Your task to perform on an android device: turn on data saver in the chrome app Image 0: 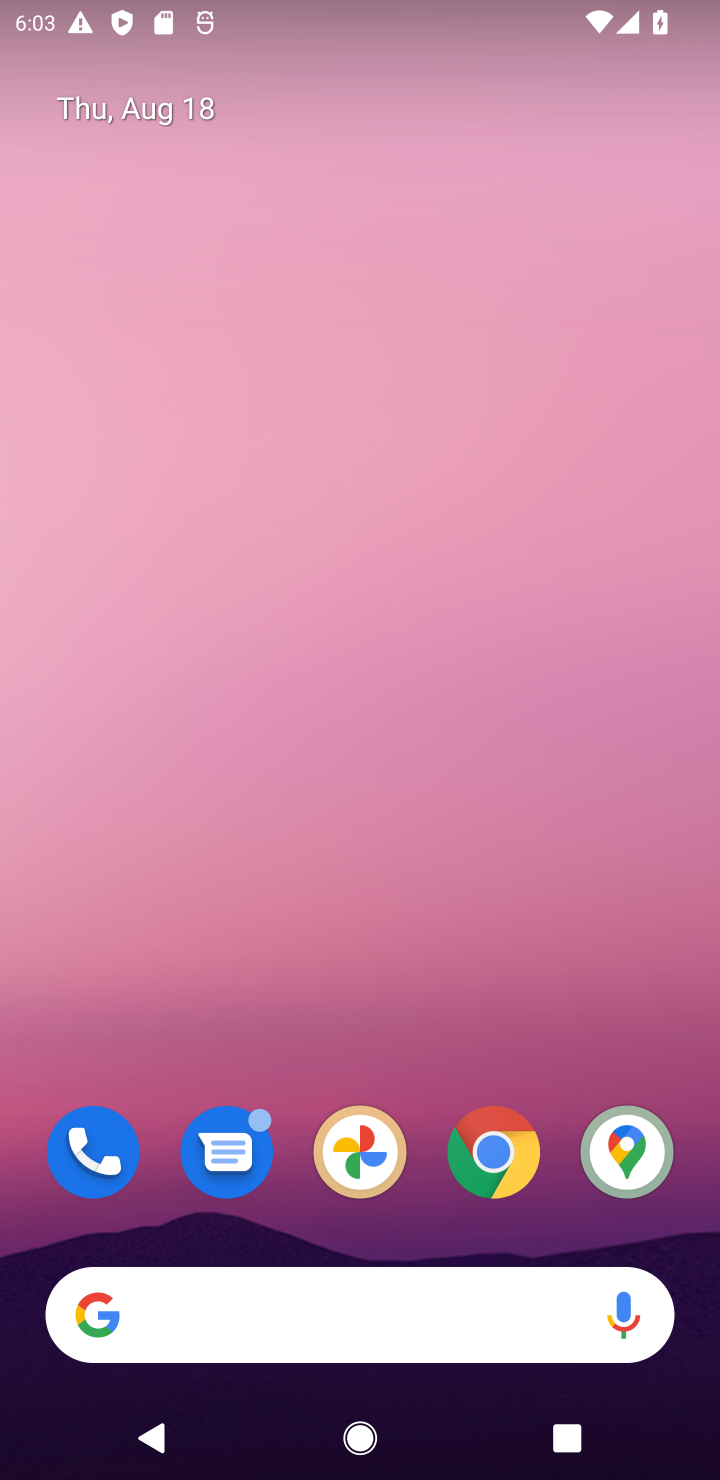
Step 0: drag from (366, 1033) to (424, 65)
Your task to perform on an android device: turn on data saver in the chrome app Image 1: 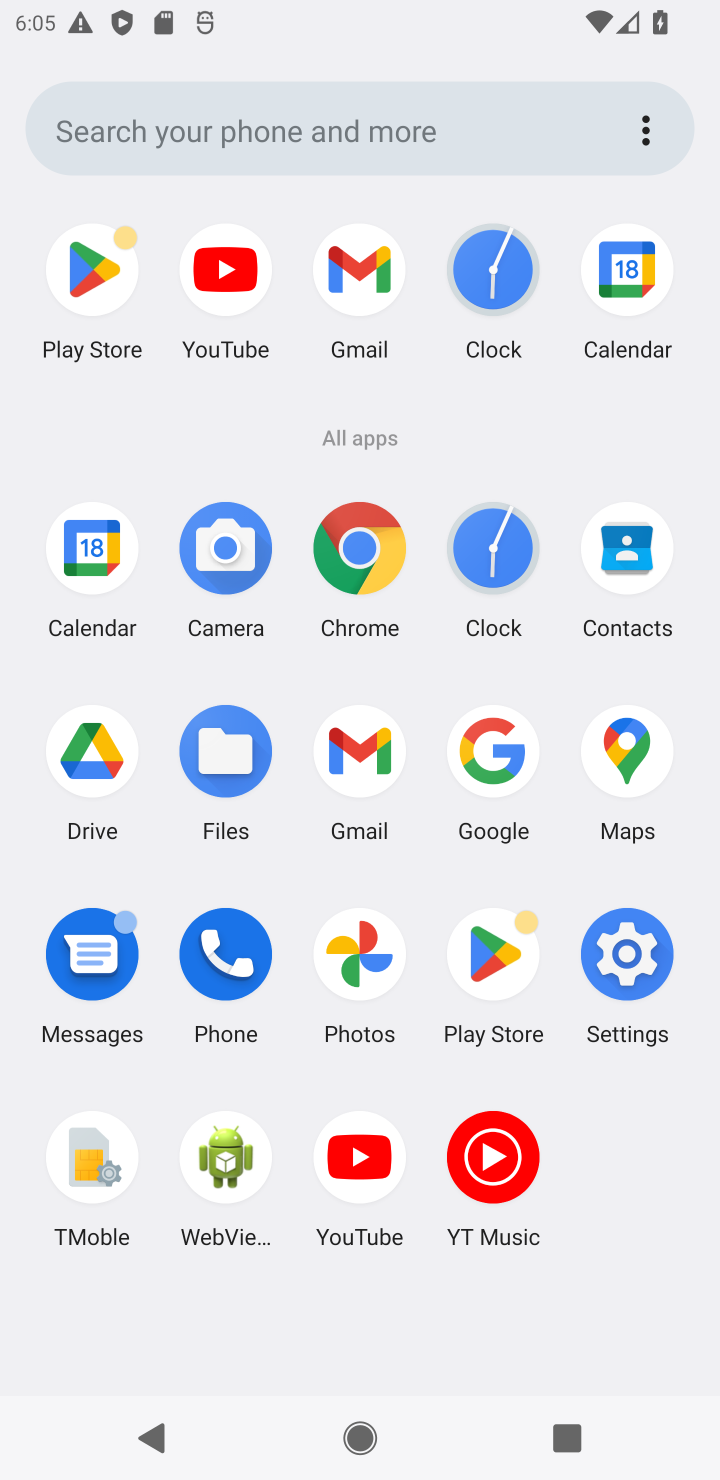
Step 1: click (354, 533)
Your task to perform on an android device: turn on data saver in the chrome app Image 2: 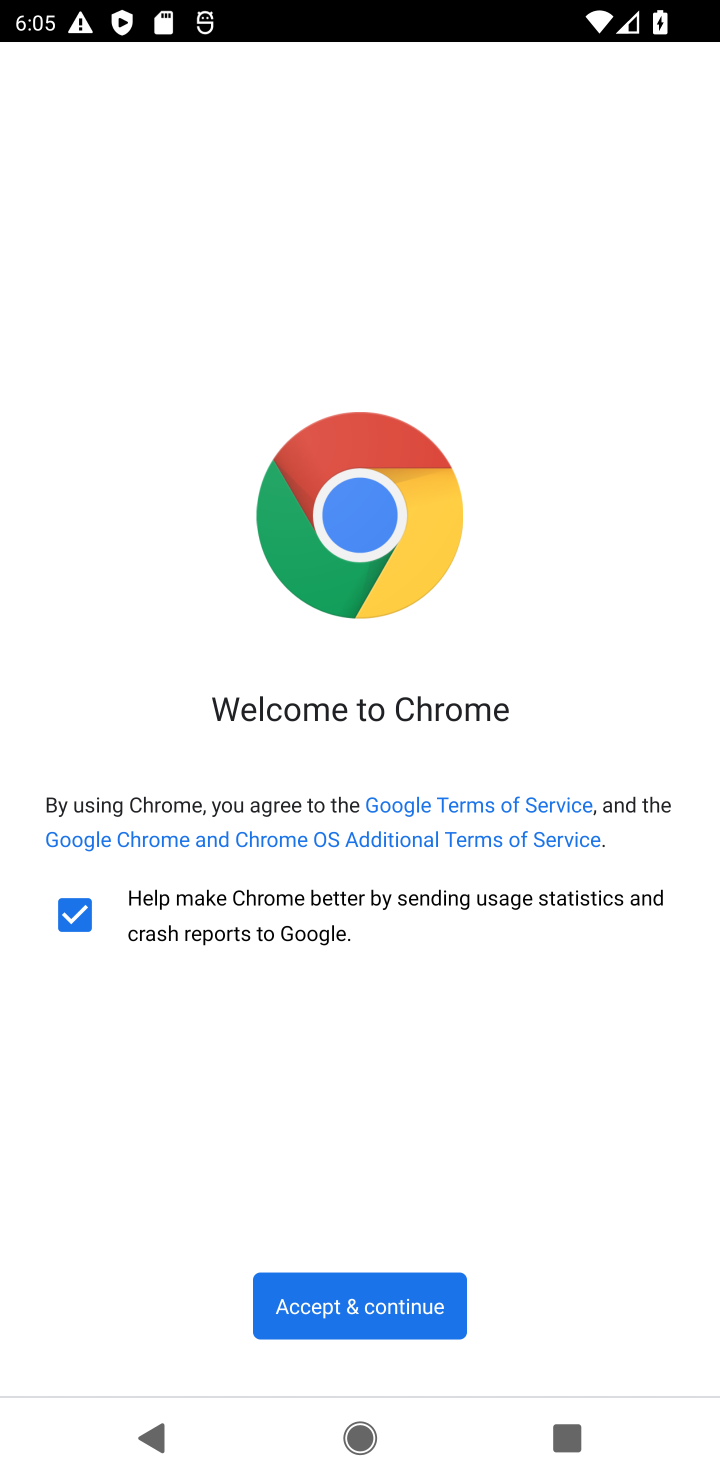
Step 2: click (350, 1308)
Your task to perform on an android device: turn on data saver in the chrome app Image 3: 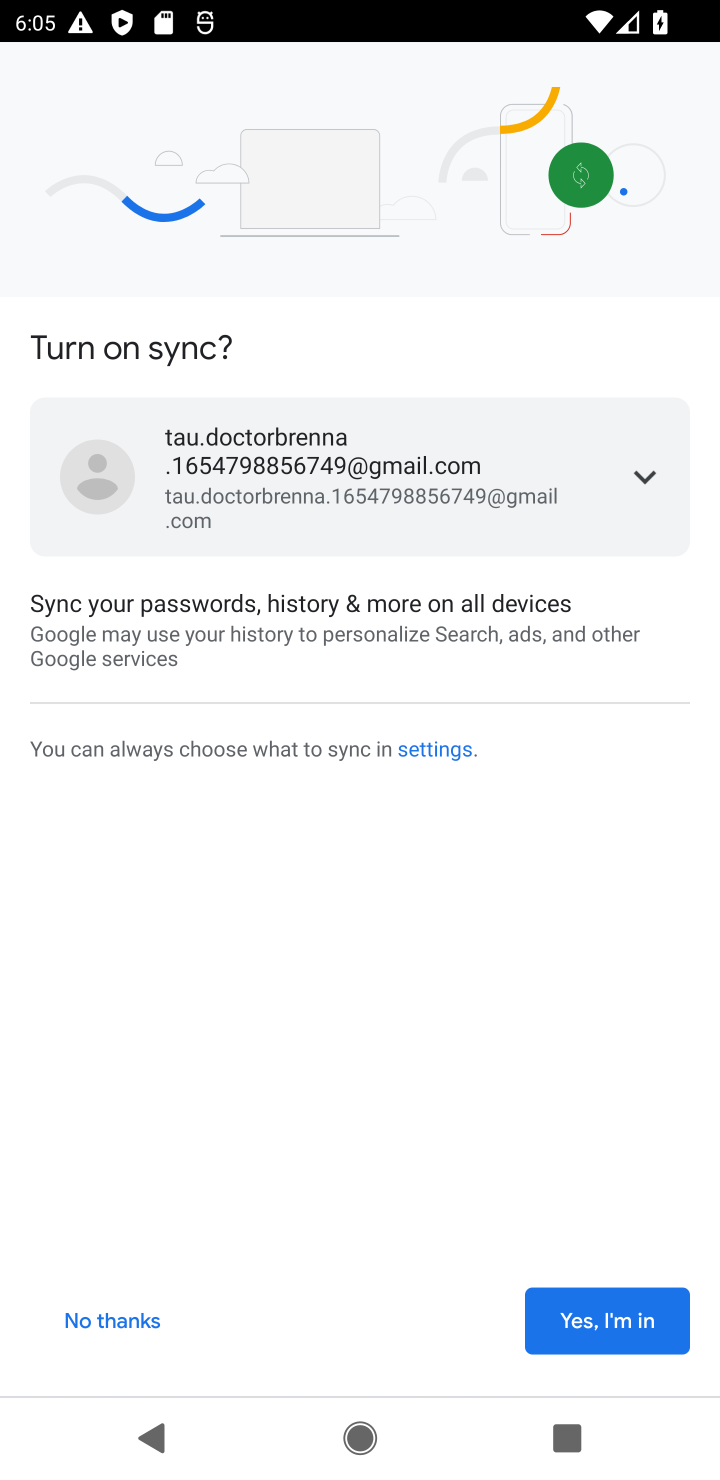
Step 3: click (607, 1311)
Your task to perform on an android device: turn on data saver in the chrome app Image 4: 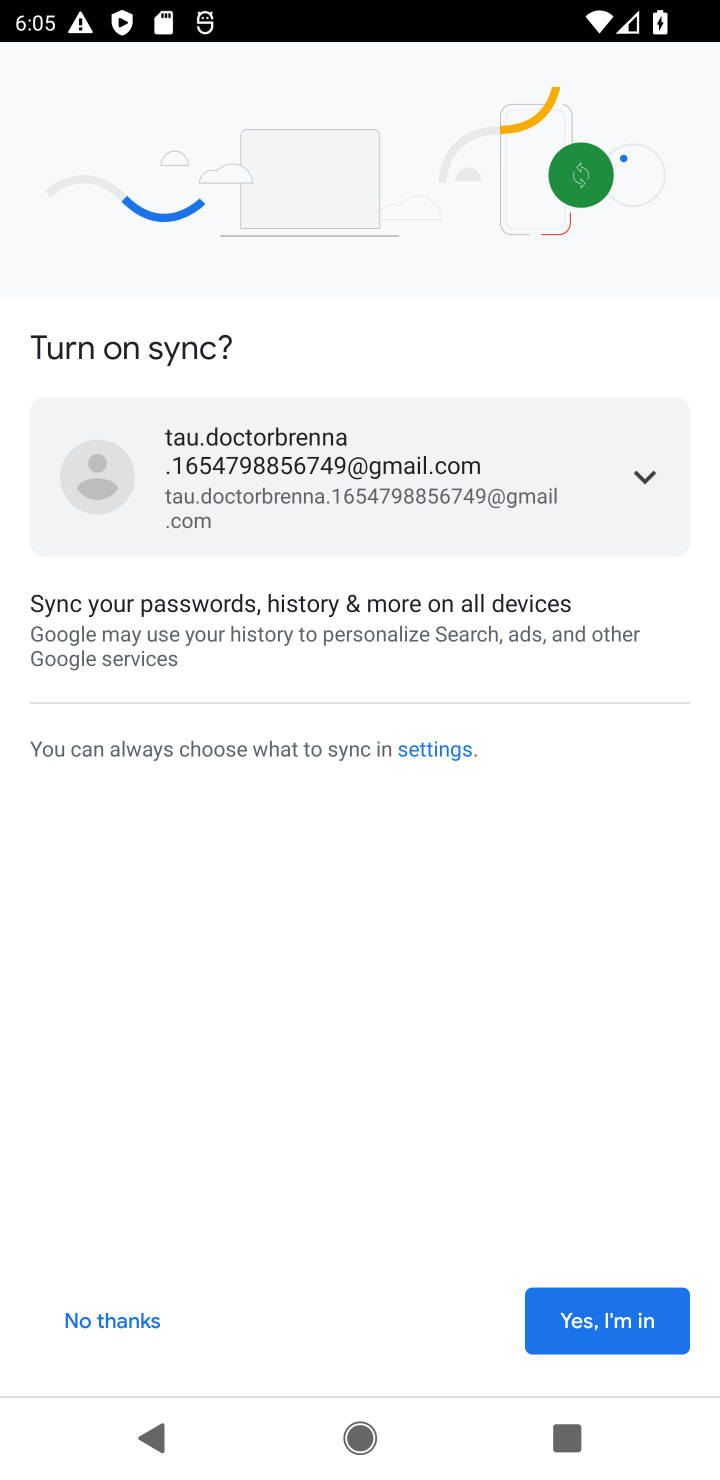
Step 4: click (607, 1319)
Your task to perform on an android device: turn on data saver in the chrome app Image 5: 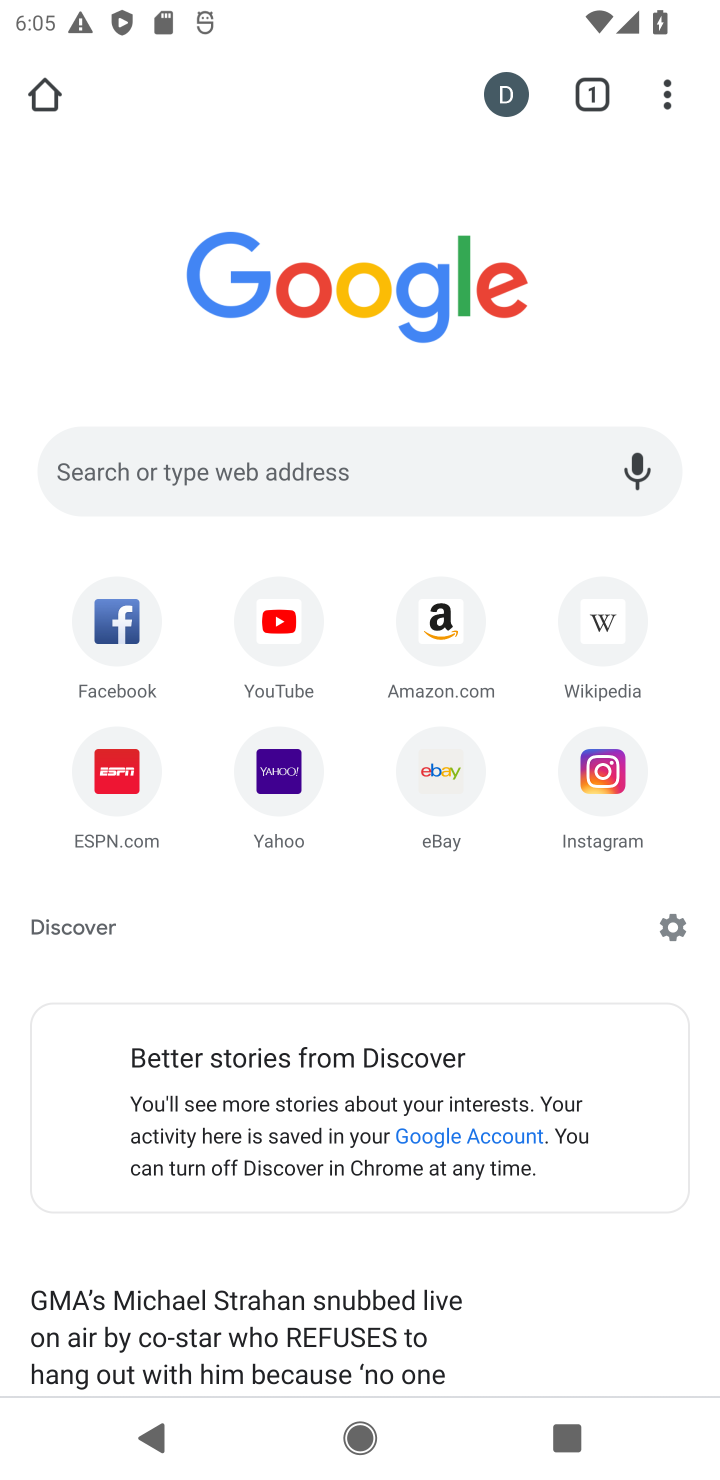
Step 5: click (666, 87)
Your task to perform on an android device: turn on data saver in the chrome app Image 6: 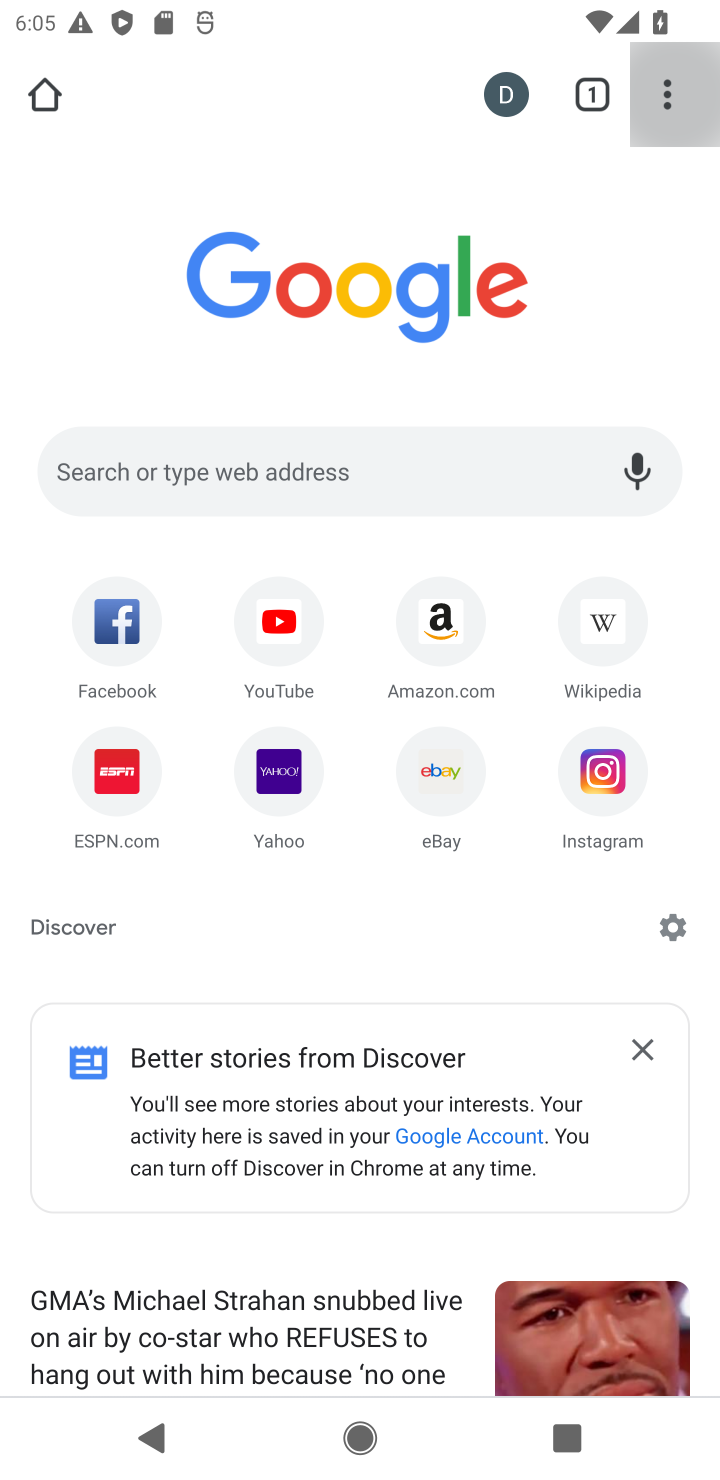
Step 6: drag from (666, 87) to (407, 871)
Your task to perform on an android device: turn on data saver in the chrome app Image 7: 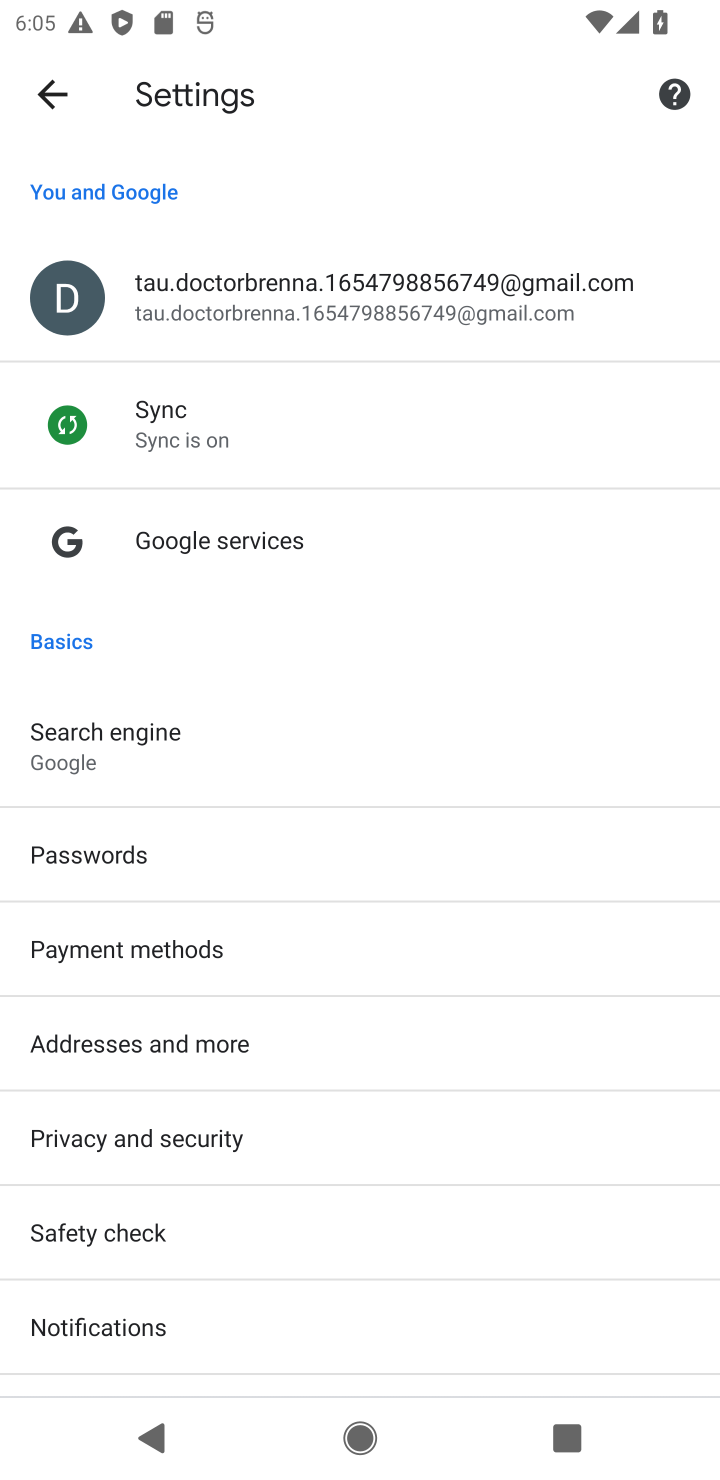
Step 7: drag from (222, 1271) to (262, 641)
Your task to perform on an android device: turn on data saver in the chrome app Image 8: 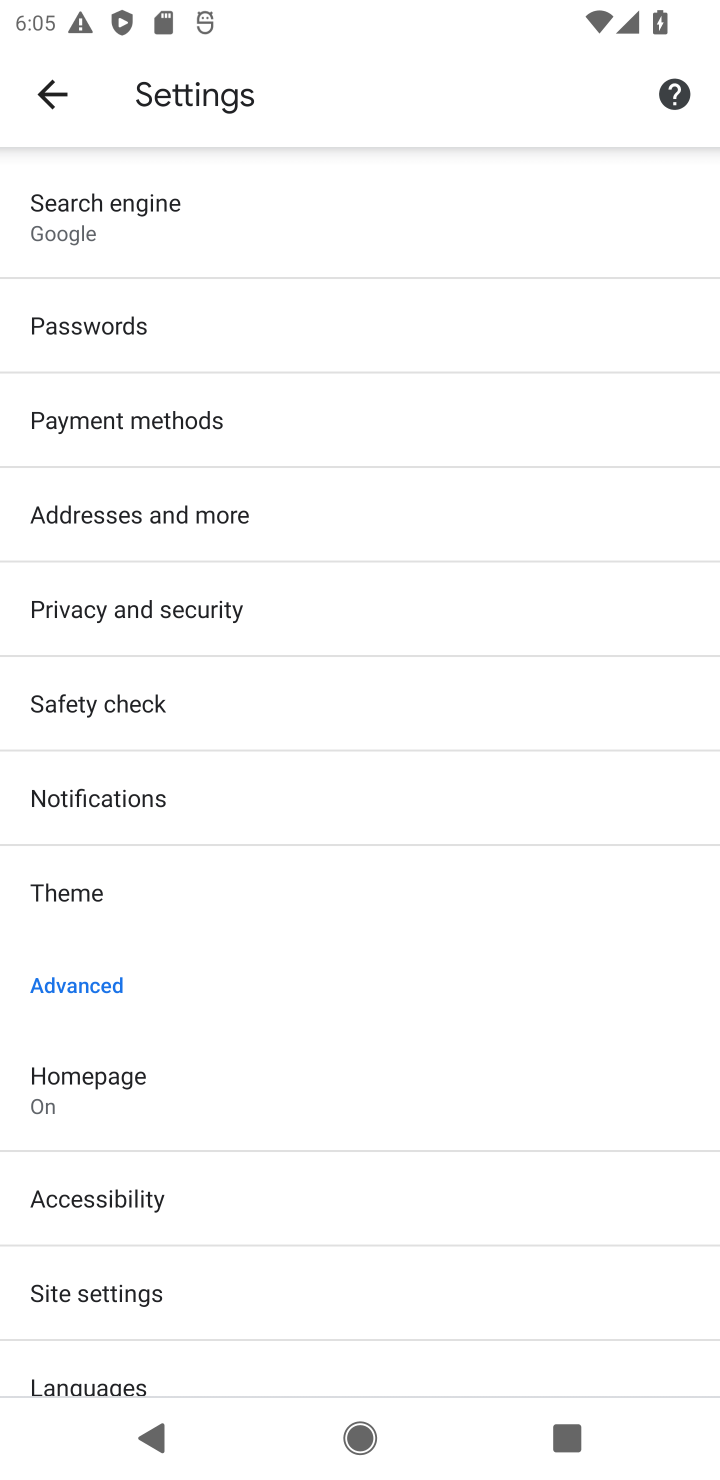
Step 8: drag from (134, 1326) to (364, 545)
Your task to perform on an android device: turn on data saver in the chrome app Image 9: 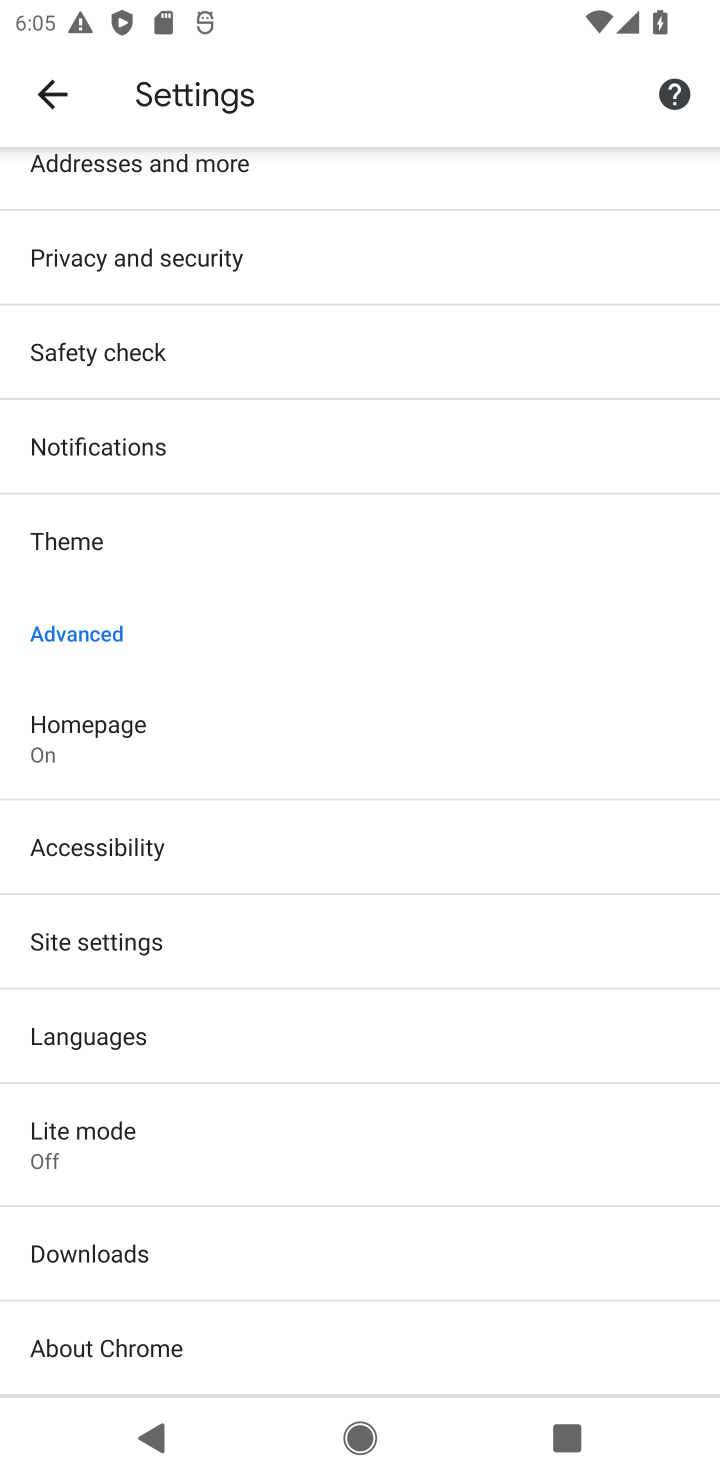
Step 9: click (118, 1156)
Your task to perform on an android device: turn on data saver in the chrome app Image 10: 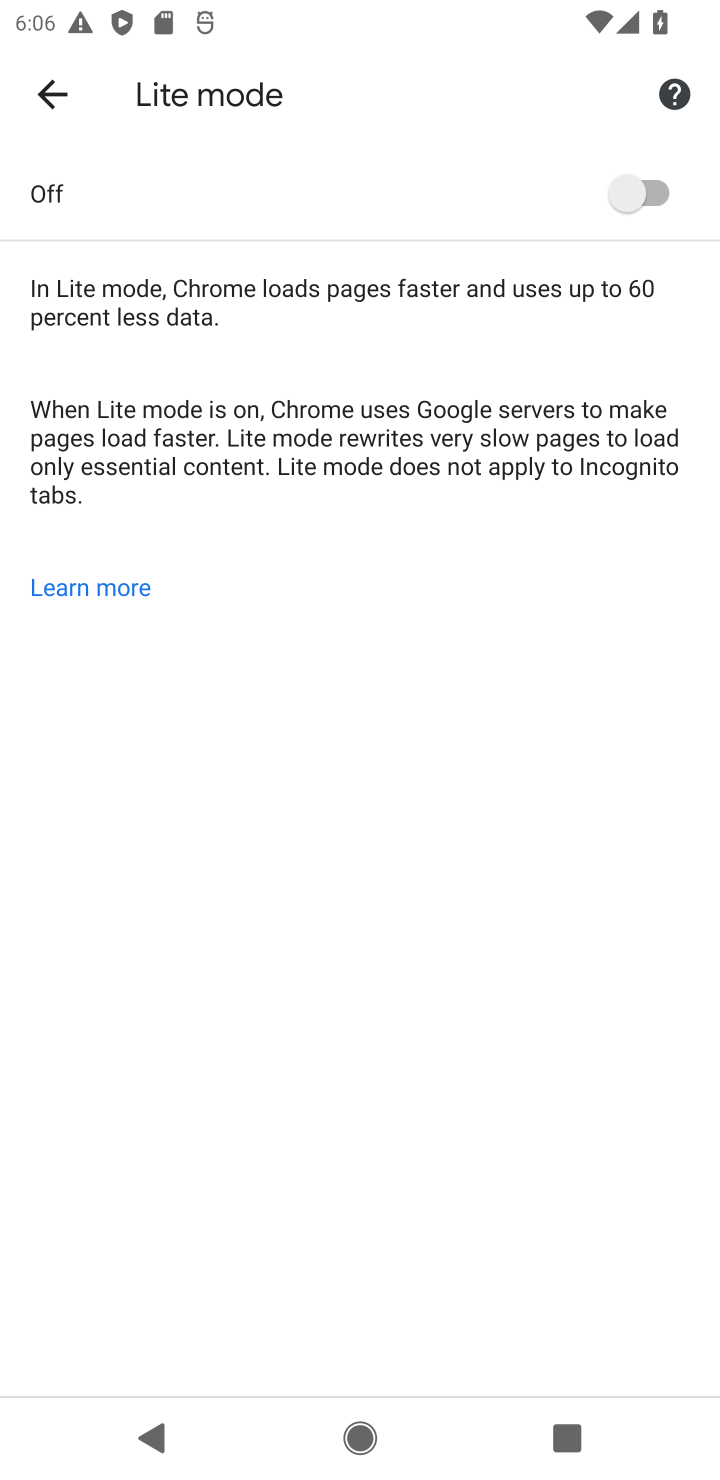
Step 10: click (651, 194)
Your task to perform on an android device: turn on data saver in the chrome app Image 11: 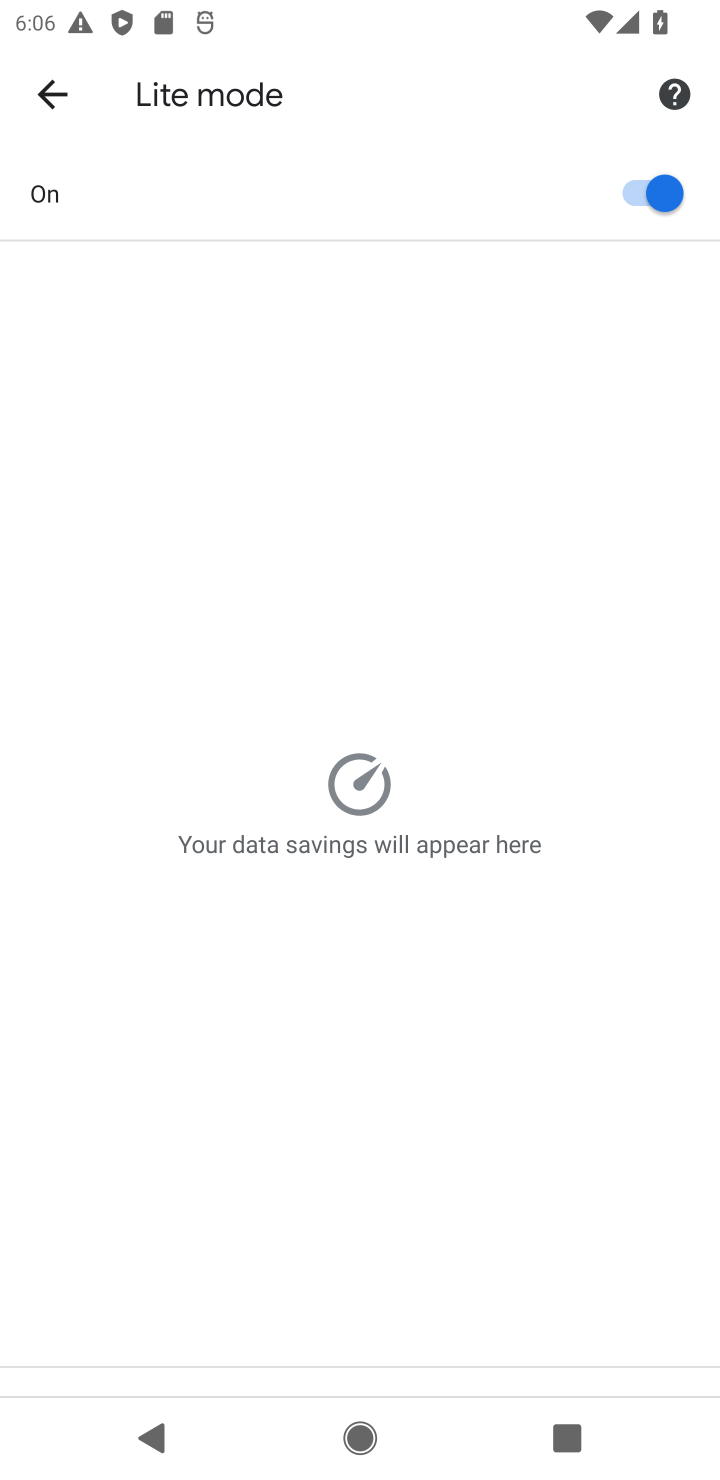
Step 11: task complete